Your task to perform on an android device: Open calendar and show me the third week of next month Image 0: 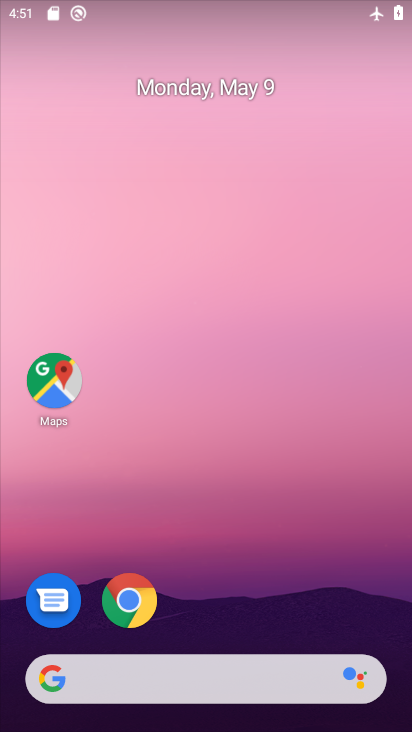
Step 0: drag from (334, 684) to (367, 139)
Your task to perform on an android device: Open calendar and show me the third week of next month Image 1: 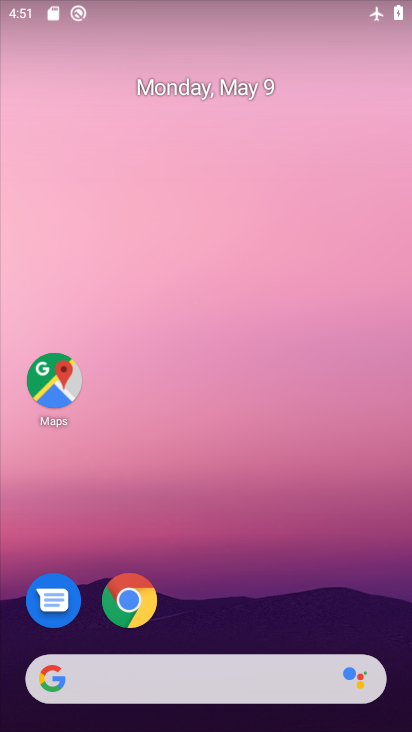
Step 1: drag from (313, 638) to (291, 10)
Your task to perform on an android device: Open calendar and show me the third week of next month Image 2: 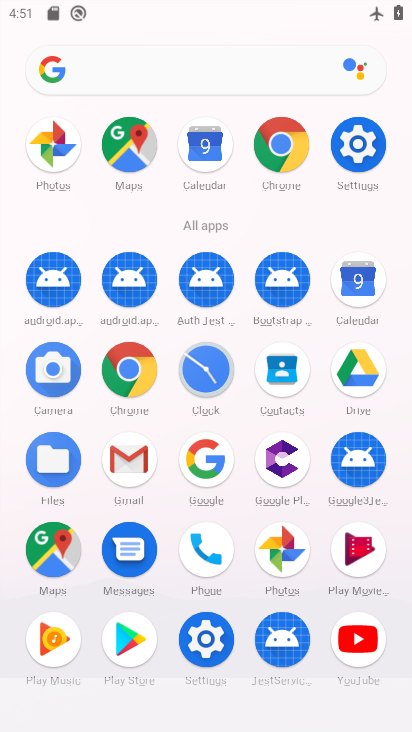
Step 2: click (364, 280)
Your task to perform on an android device: Open calendar and show me the third week of next month Image 3: 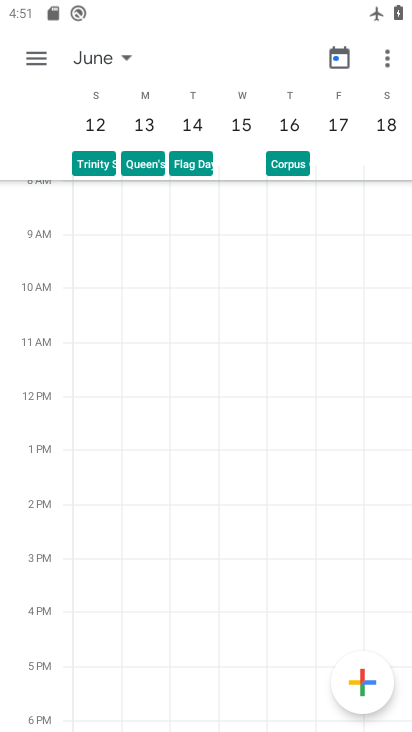
Step 3: click (125, 58)
Your task to perform on an android device: Open calendar and show me the third week of next month Image 4: 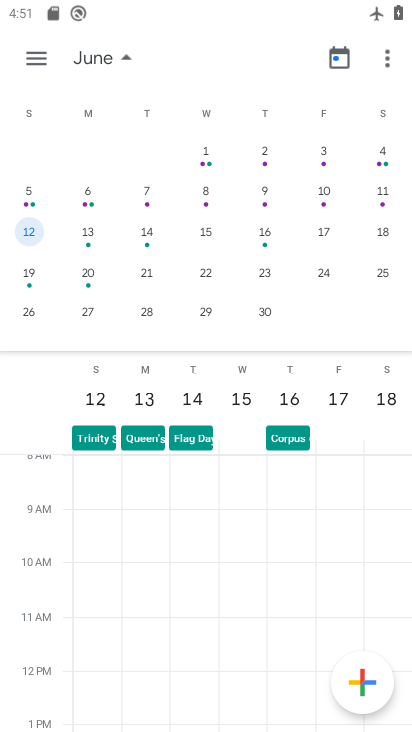
Step 4: task complete